Your task to perform on an android device: Open Chrome and go to settings Image 0: 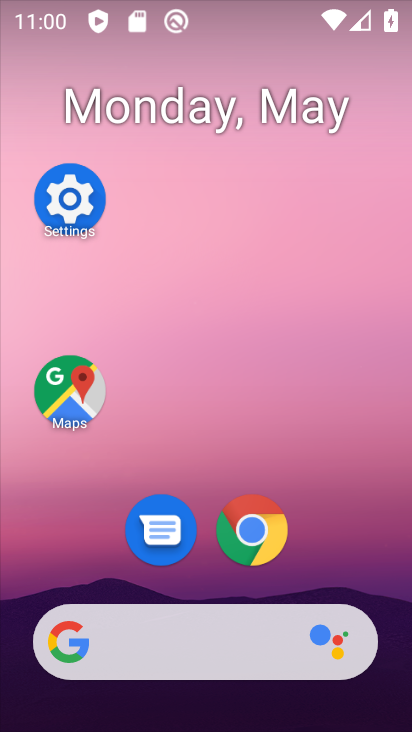
Step 0: click (264, 528)
Your task to perform on an android device: Open Chrome and go to settings Image 1: 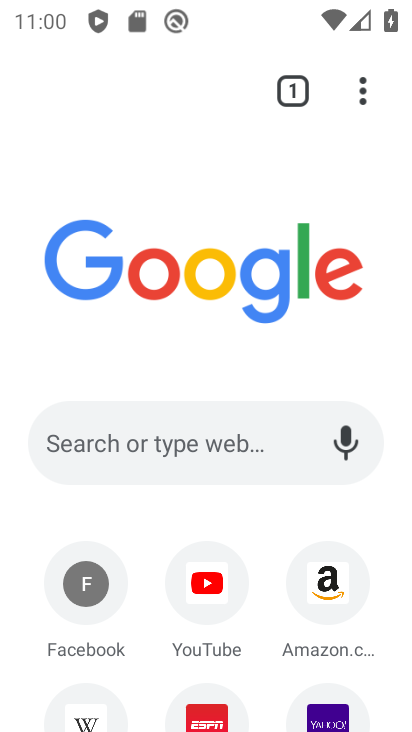
Step 1: click (368, 104)
Your task to perform on an android device: Open Chrome and go to settings Image 2: 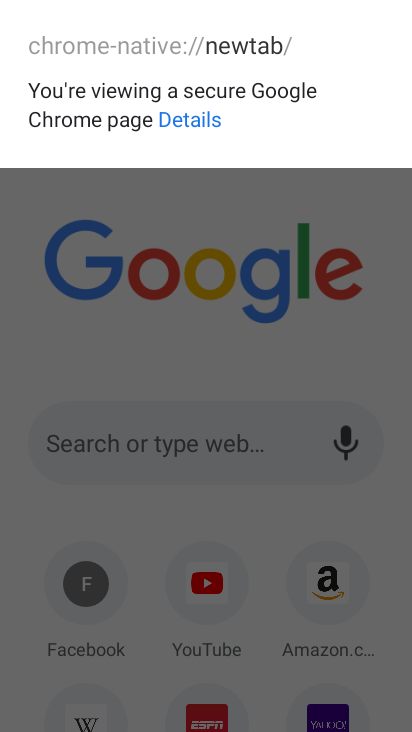
Step 2: click (361, 228)
Your task to perform on an android device: Open Chrome and go to settings Image 3: 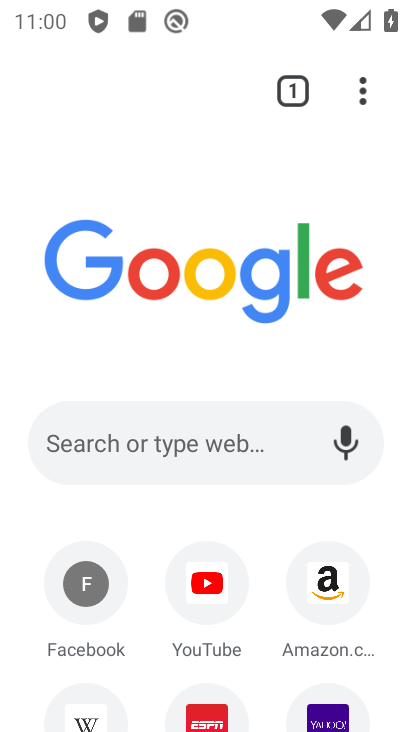
Step 3: click (359, 100)
Your task to perform on an android device: Open Chrome and go to settings Image 4: 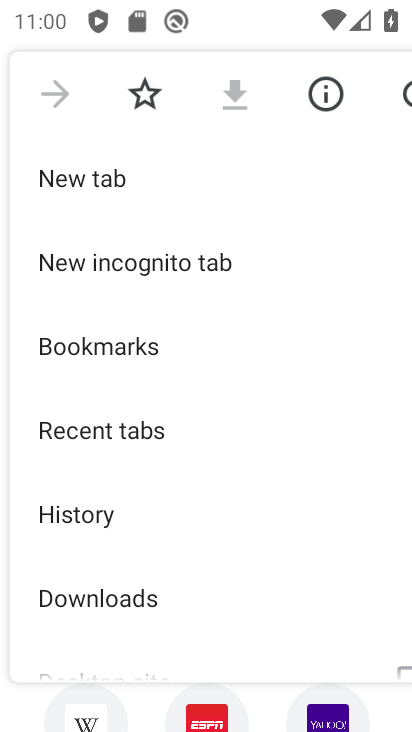
Step 4: drag from (185, 525) to (248, 105)
Your task to perform on an android device: Open Chrome and go to settings Image 5: 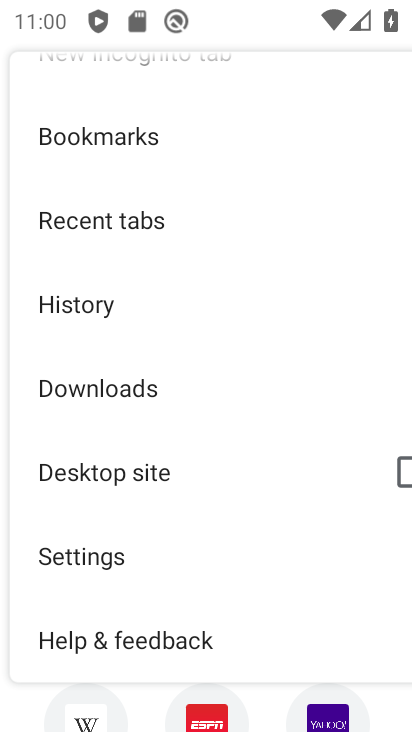
Step 5: click (109, 581)
Your task to perform on an android device: Open Chrome and go to settings Image 6: 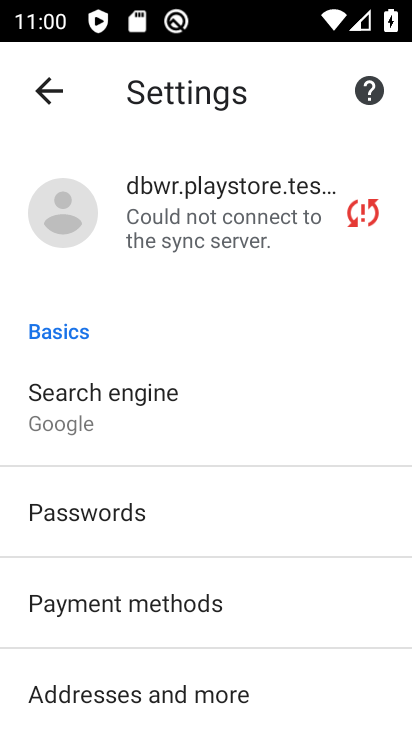
Step 6: task complete